Your task to perform on an android device: turn notification dots off Image 0: 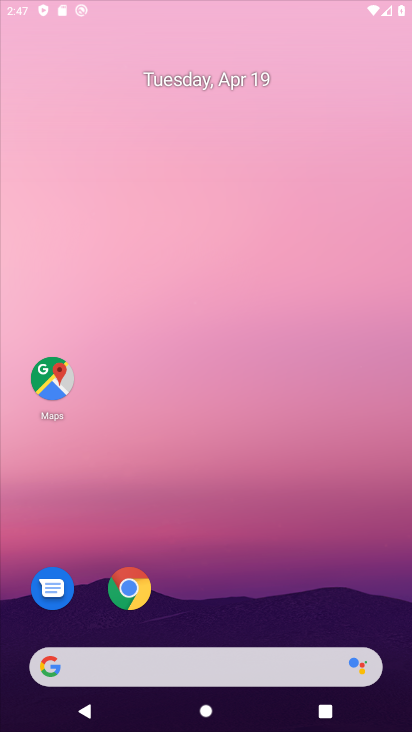
Step 0: drag from (172, 77) to (275, 723)
Your task to perform on an android device: turn notification dots off Image 1: 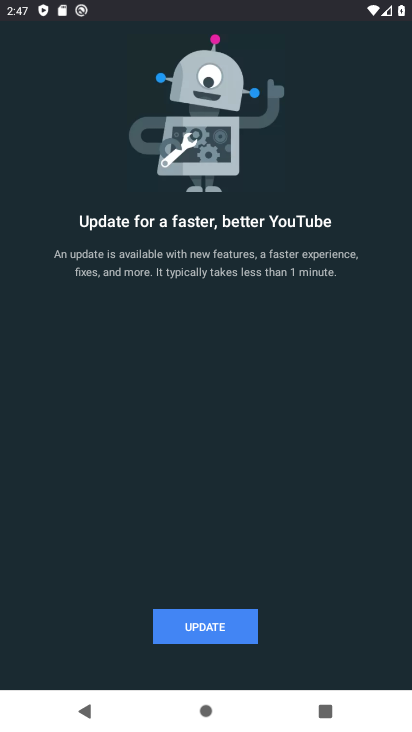
Step 1: press home button
Your task to perform on an android device: turn notification dots off Image 2: 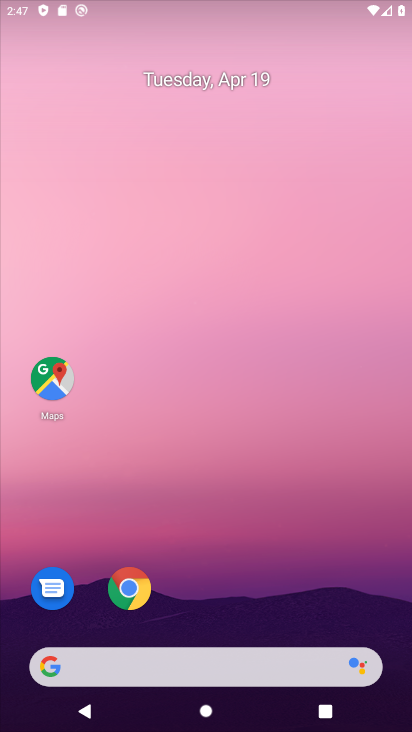
Step 2: drag from (207, 594) to (328, 4)
Your task to perform on an android device: turn notification dots off Image 3: 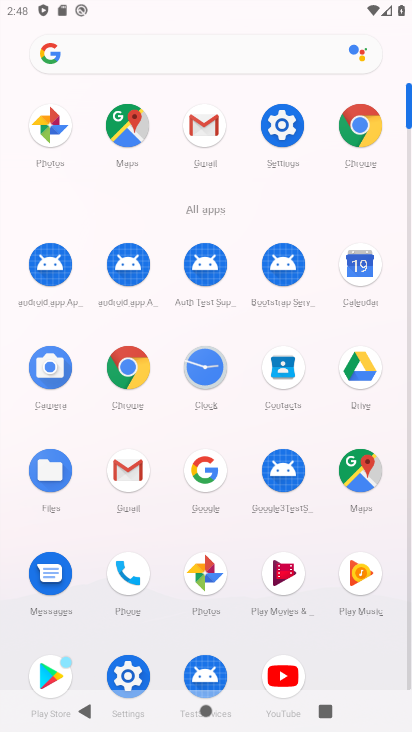
Step 3: click (131, 665)
Your task to perform on an android device: turn notification dots off Image 4: 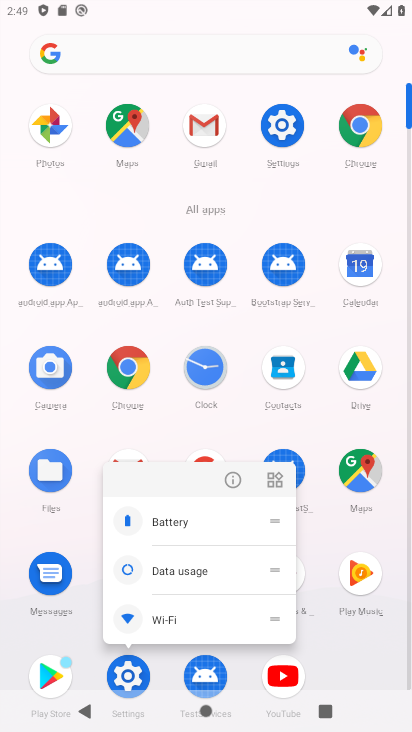
Step 4: click (224, 470)
Your task to perform on an android device: turn notification dots off Image 5: 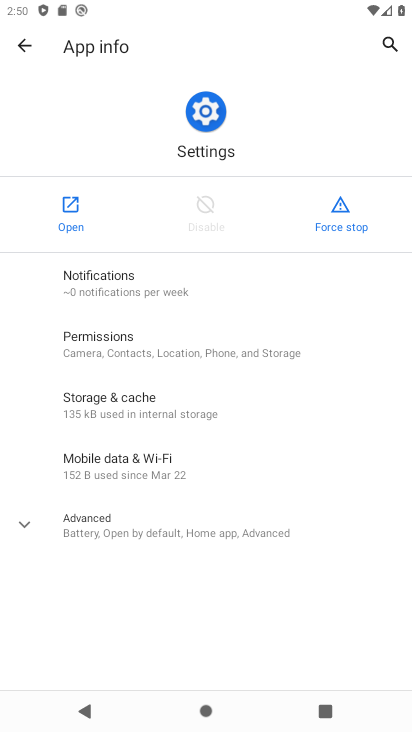
Step 5: click (63, 216)
Your task to perform on an android device: turn notification dots off Image 6: 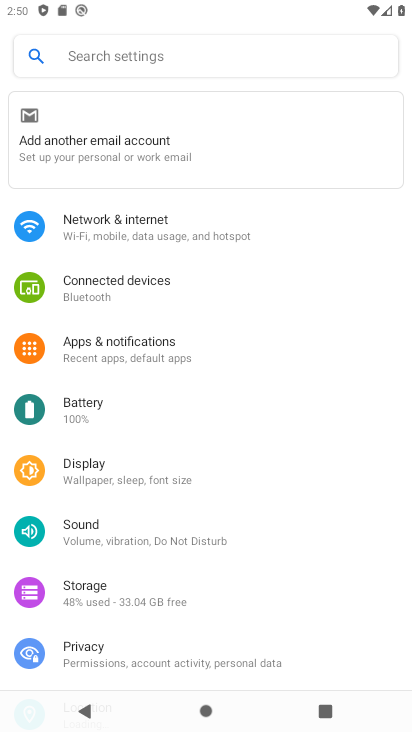
Step 6: drag from (216, 561) to (241, 299)
Your task to perform on an android device: turn notification dots off Image 7: 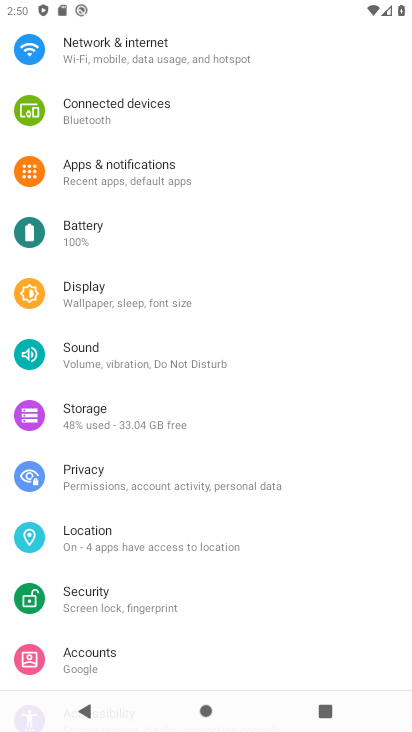
Step 7: click (165, 170)
Your task to perform on an android device: turn notification dots off Image 8: 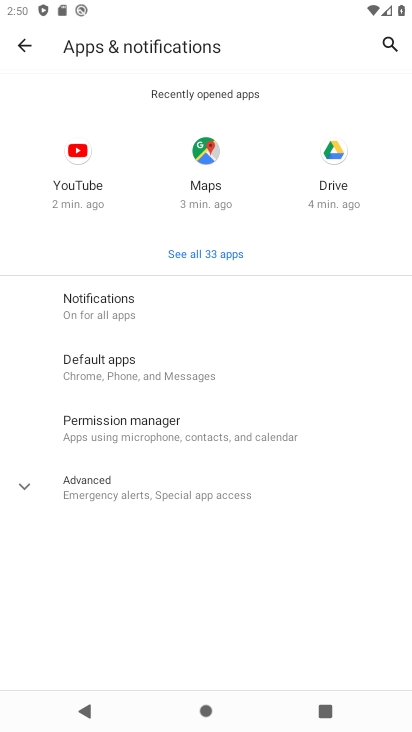
Step 8: click (198, 304)
Your task to perform on an android device: turn notification dots off Image 9: 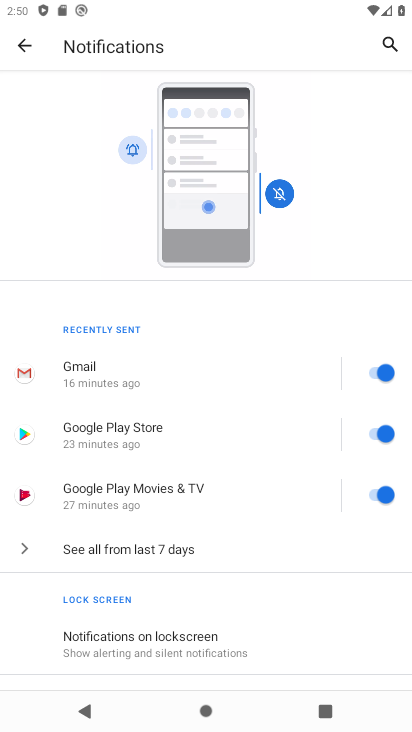
Step 9: drag from (283, 591) to (348, 146)
Your task to perform on an android device: turn notification dots off Image 10: 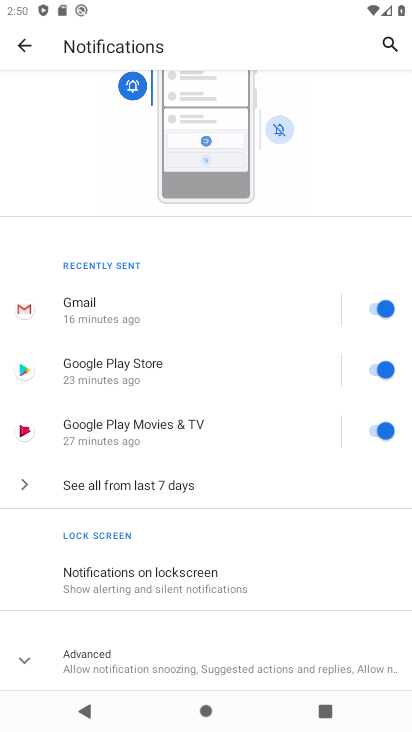
Step 10: click (146, 674)
Your task to perform on an android device: turn notification dots off Image 11: 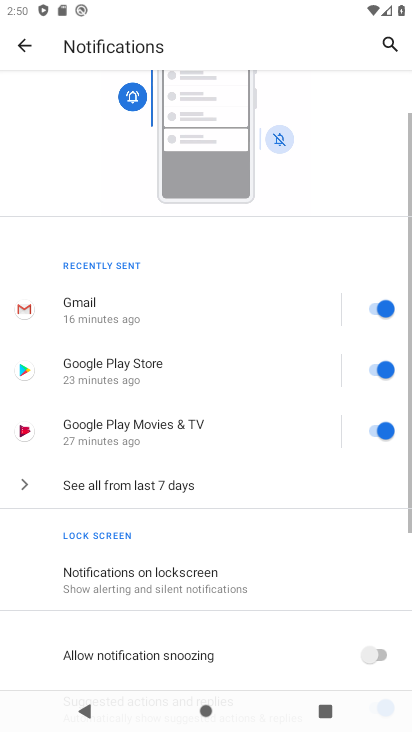
Step 11: drag from (196, 591) to (279, 179)
Your task to perform on an android device: turn notification dots off Image 12: 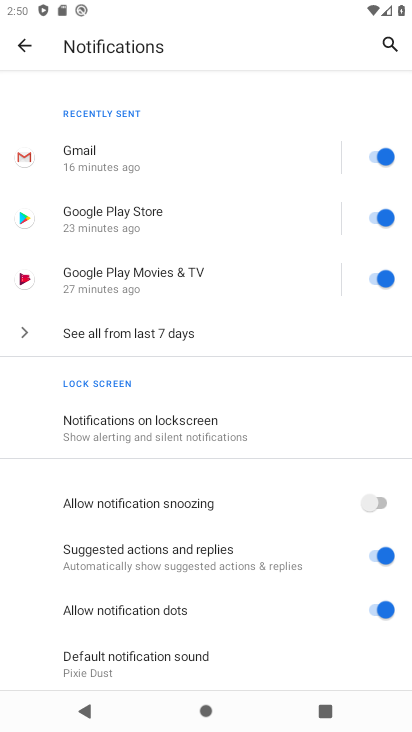
Step 12: click (378, 606)
Your task to perform on an android device: turn notification dots off Image 13: 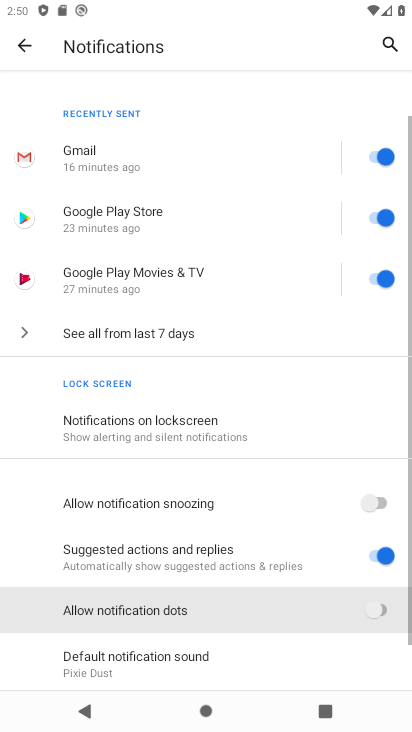
Step 13: task complete